Your task to perform on an android device: Go to Google maps Image 0: 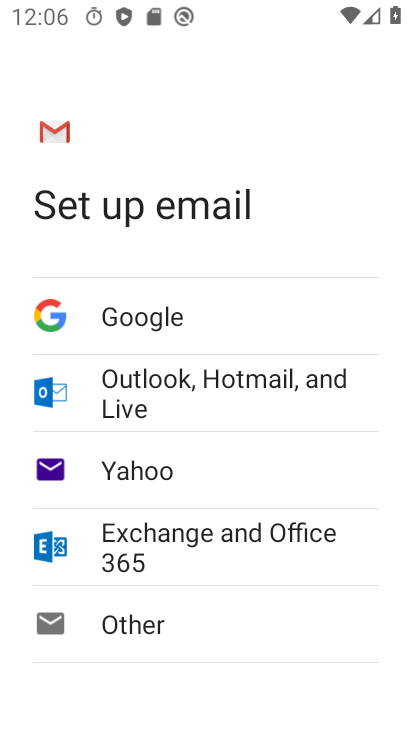
Step 0: press back button
Your task to perform on an android device: Go to Google maps Image 1: 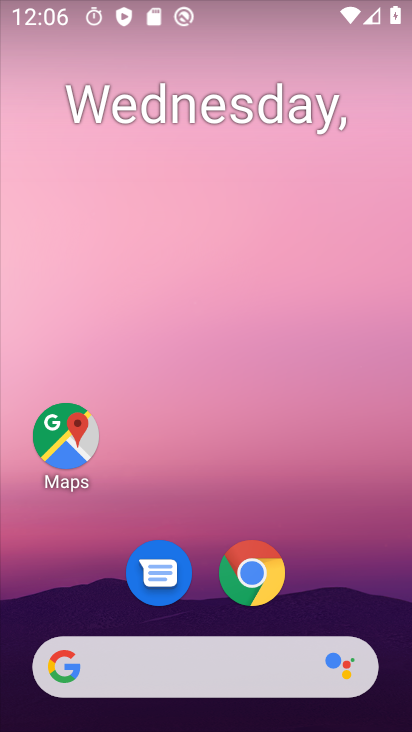
Step 1: drag from (382, 621) to (184, 56)
Your task to perform on an android device: Go to Google maps Image 2: 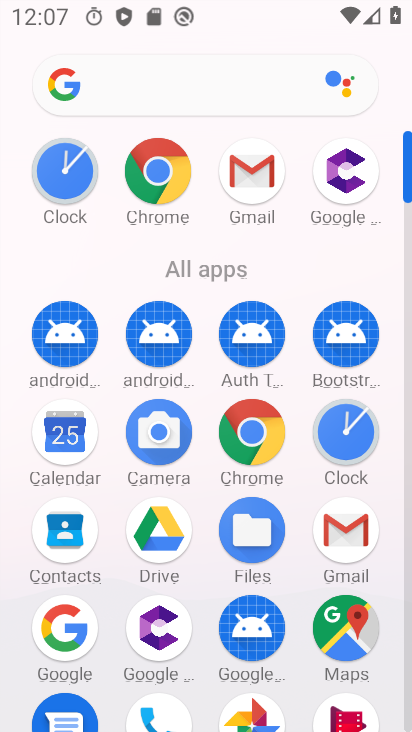
Step 2: drag from (282, 650) to (317, 209)
Your task to perform on an android device: Go to Google maps Image 3: 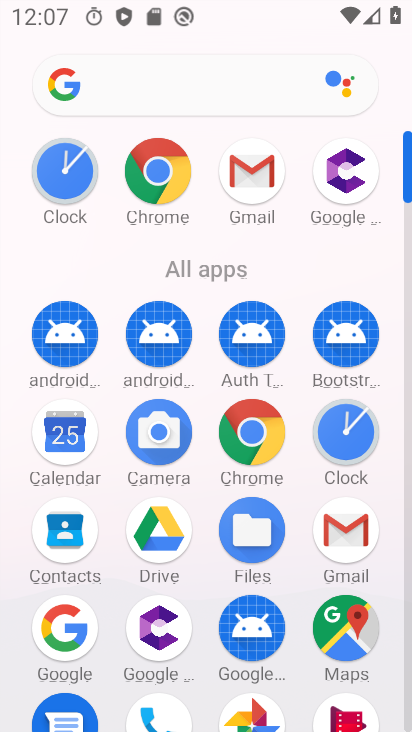
Step 3: drag from (292, 564) to (292, 222)
Your task to perform on an android device: Go to Google maps Image 4: 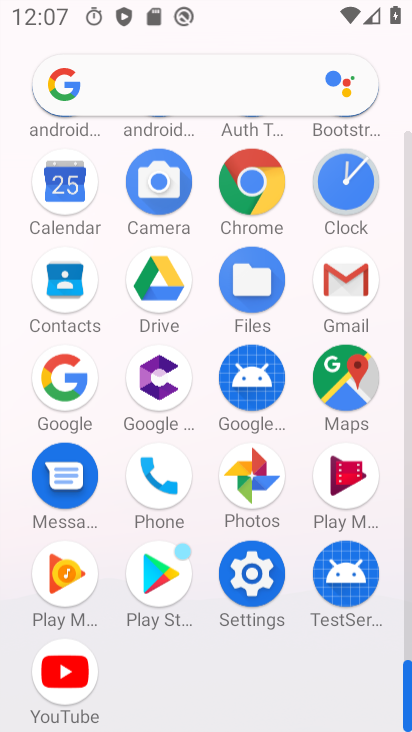
Step 4: drag from (269, 541) to (299, 200)
Your task to perform on an android device: Go to Google maps Image 5: 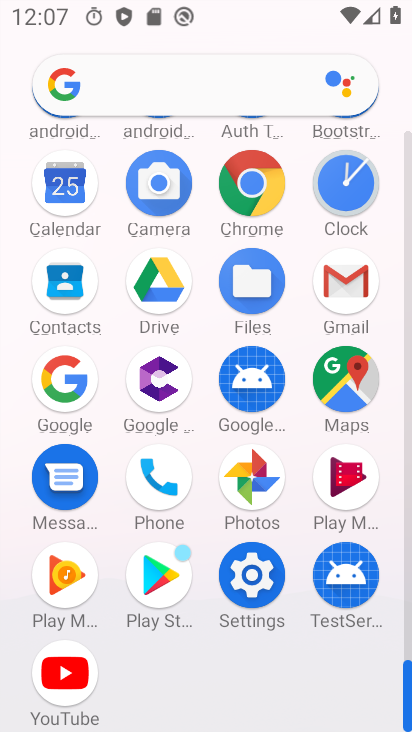
Step 5: click (354, 389)
Your task to perform on an android device: Go to Google maps Image 6: 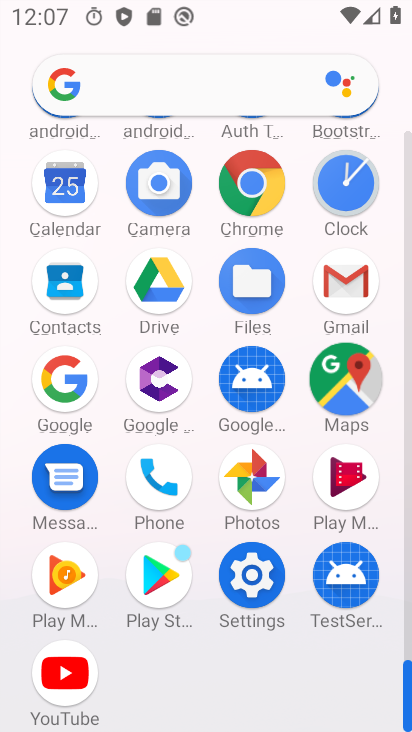
Step 6: click (358, 385)
Your task to perform on an android device: Go to Google maps Image 7: 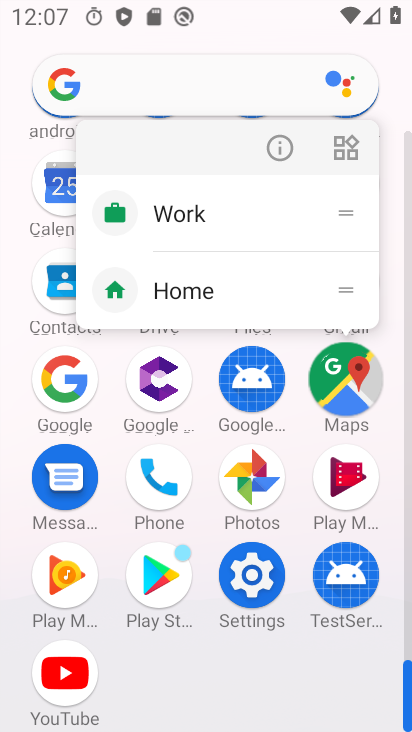
Step 7: click (360, 380)
Your task to perform on an android device: Go to Google maps Image 8: 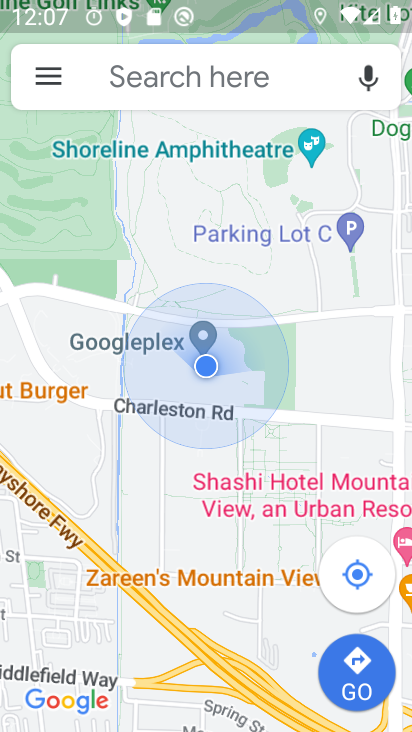
Step 8: task complete